Your task to perform on an android device: turn off wifi Image 0: 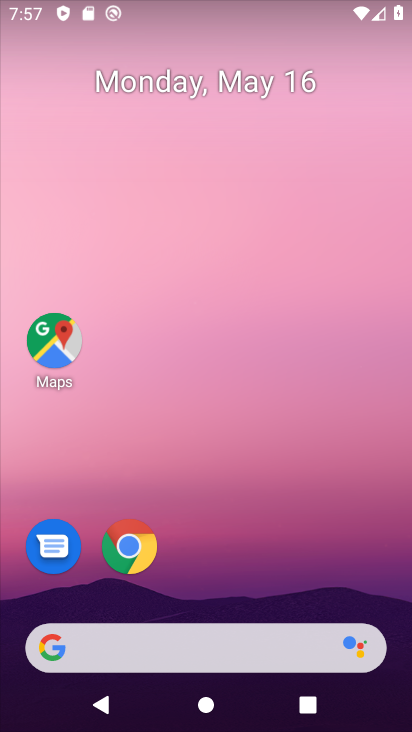
Step 0: drag from (273, 573) to (272, 130)
Your task to perform on an android device: turn off wifi Image 1: 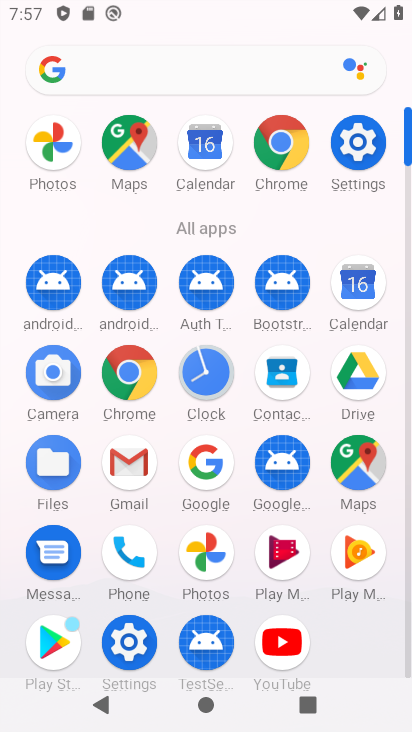
Step 1: click (347, 170)
Your task to perform on an android device: turn off wifi Image 2: 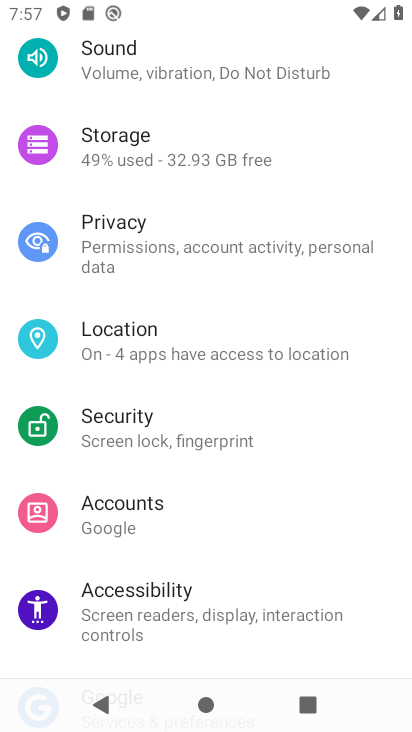
Step 2: drag from (269, 95) to (207, 477)
Your task to perform on an android device: turn off wifi Image 3: 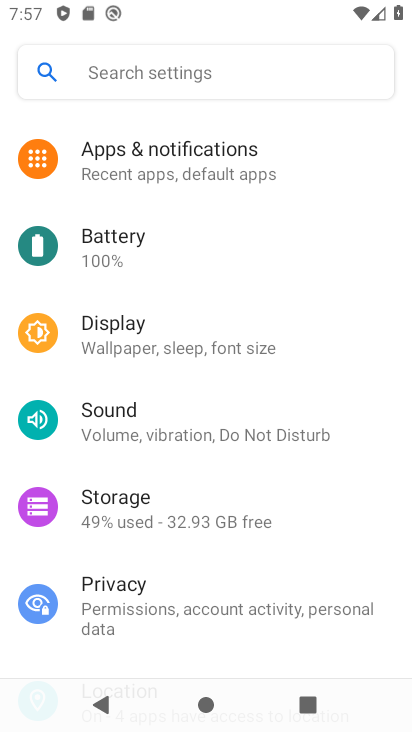
Step 3: drag from (225, 193) to (223, 378)
Your task to perform on an android device: turn off wifi Image 4: 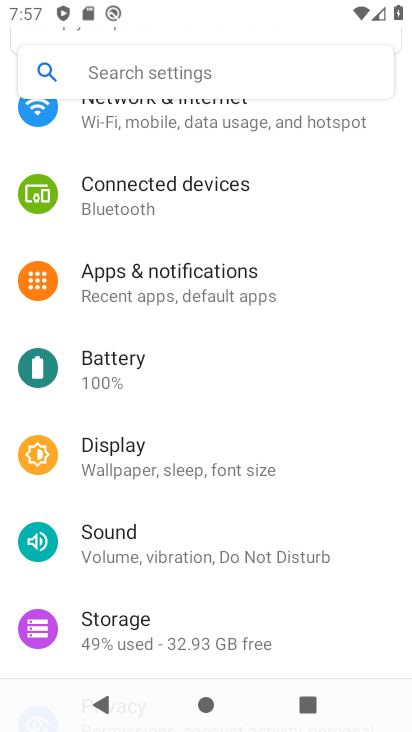
Step 4: click (285, 128)
Your task to perform on an android device: turn off wifi Image 5: 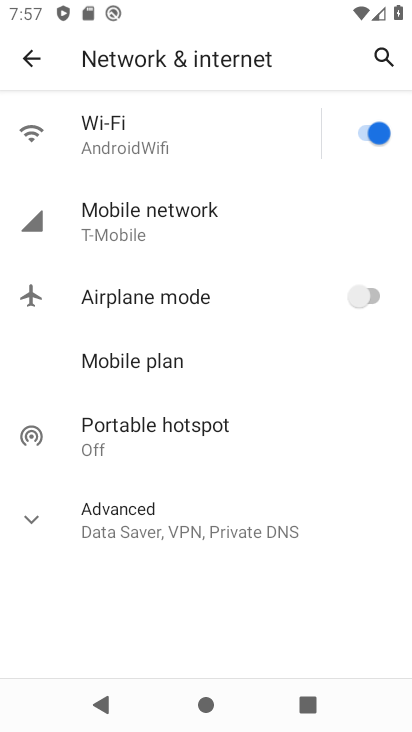
Step 5: click (352, 126)
Your task to perform on an android device: turn off wifi Image 6: 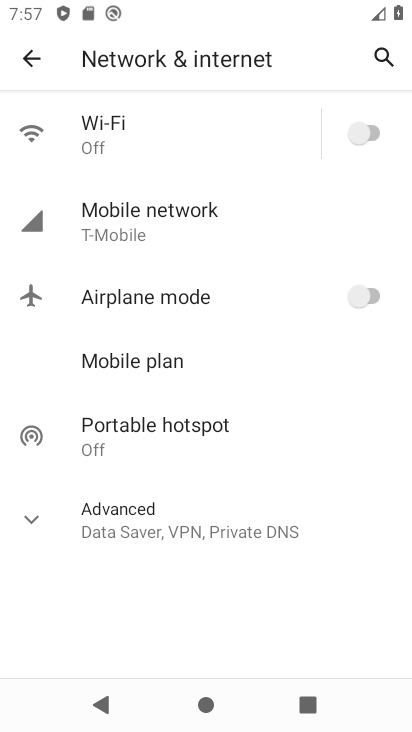
Step 6: task complete